Your task to perform on an android device: change notifications settings Image 0: 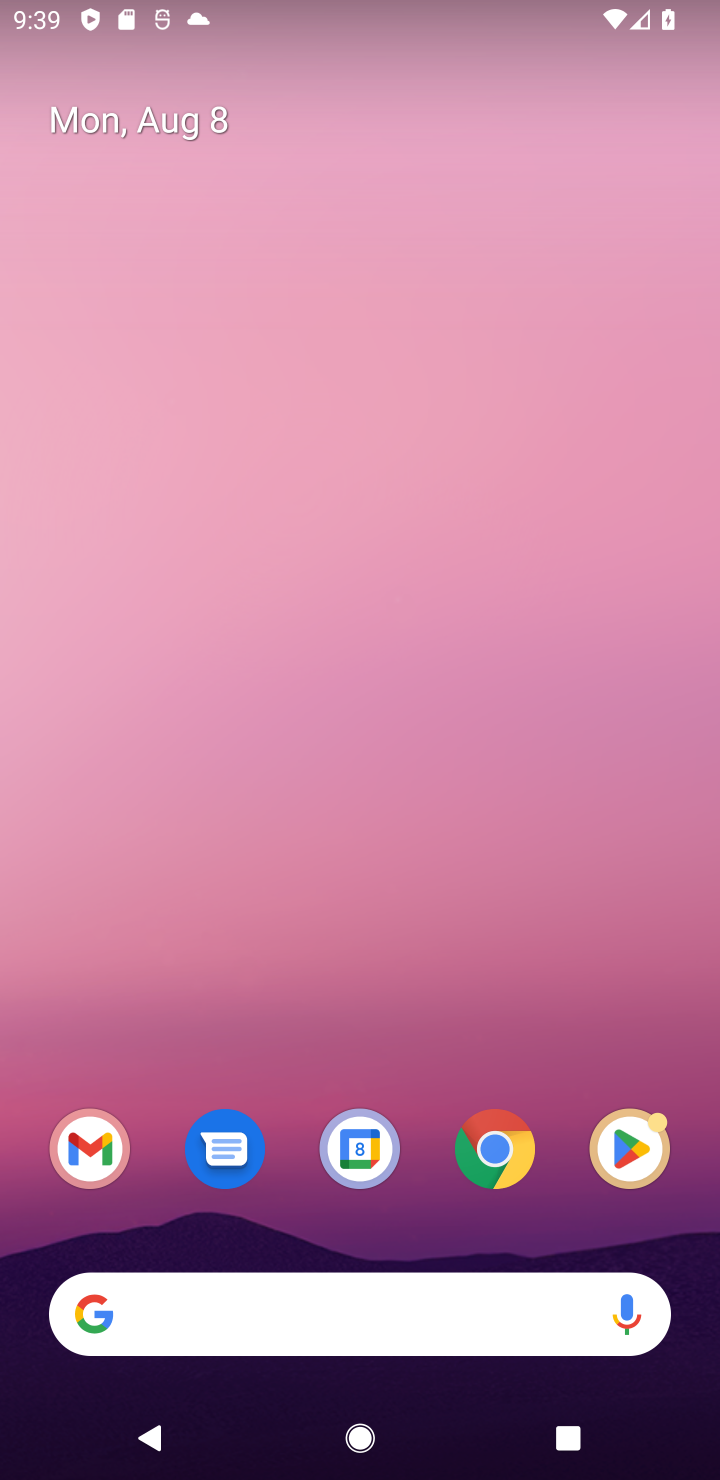
Step 0: drag from (369, 1276) to (347, 405)
Your task to perform on an android device: change notifications settings Image 1: 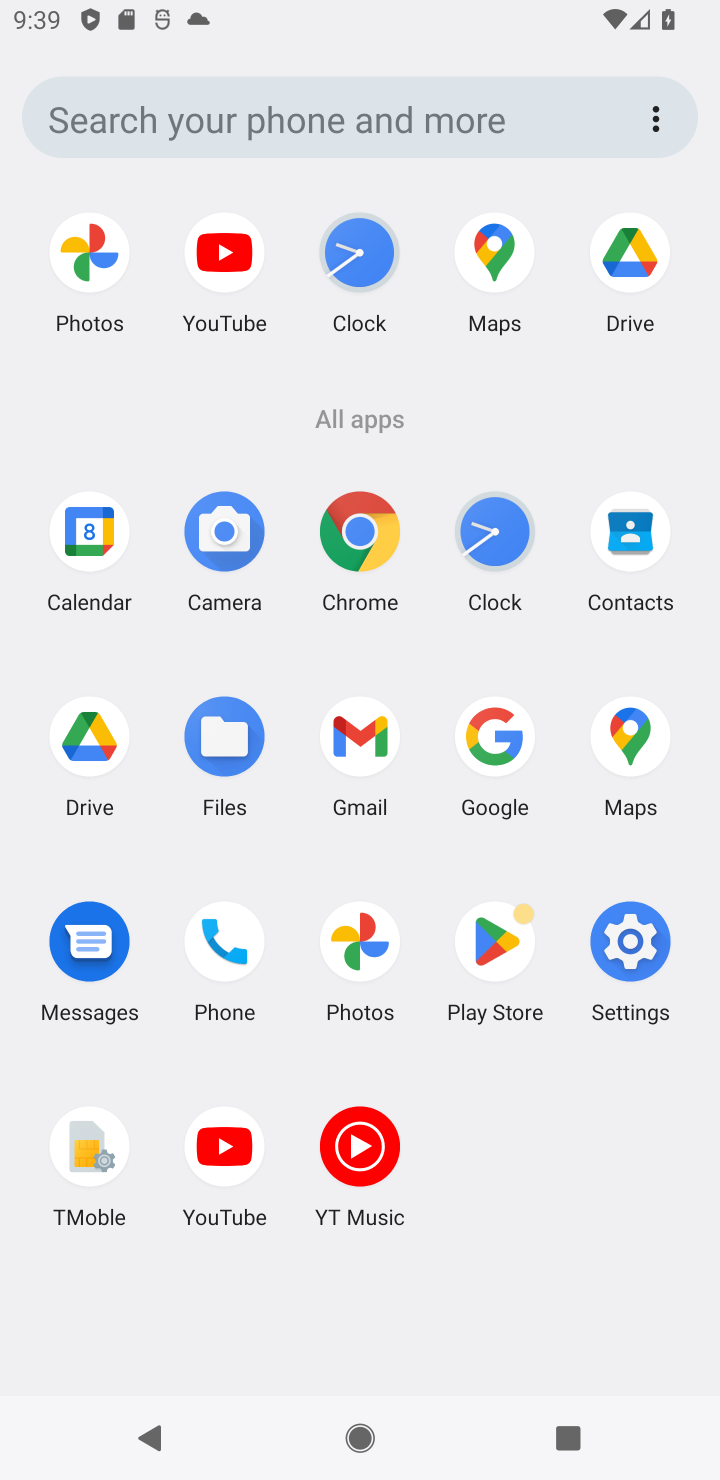
Step 1: click (636, 917)
Your task to perform on an android device: change notifications settings Image 2: 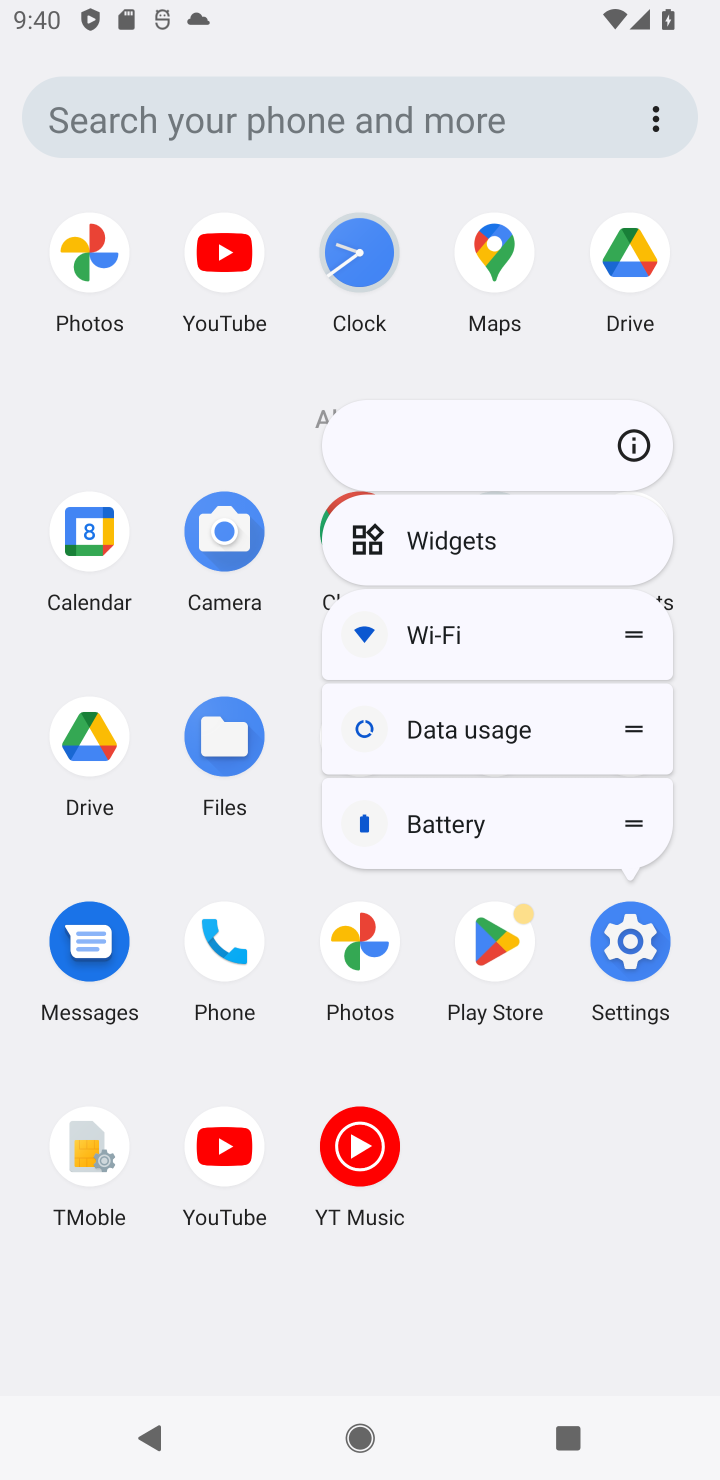
Step 2: click (639, 938)
Your task to perform on an android device: change notifications settings Image 3: 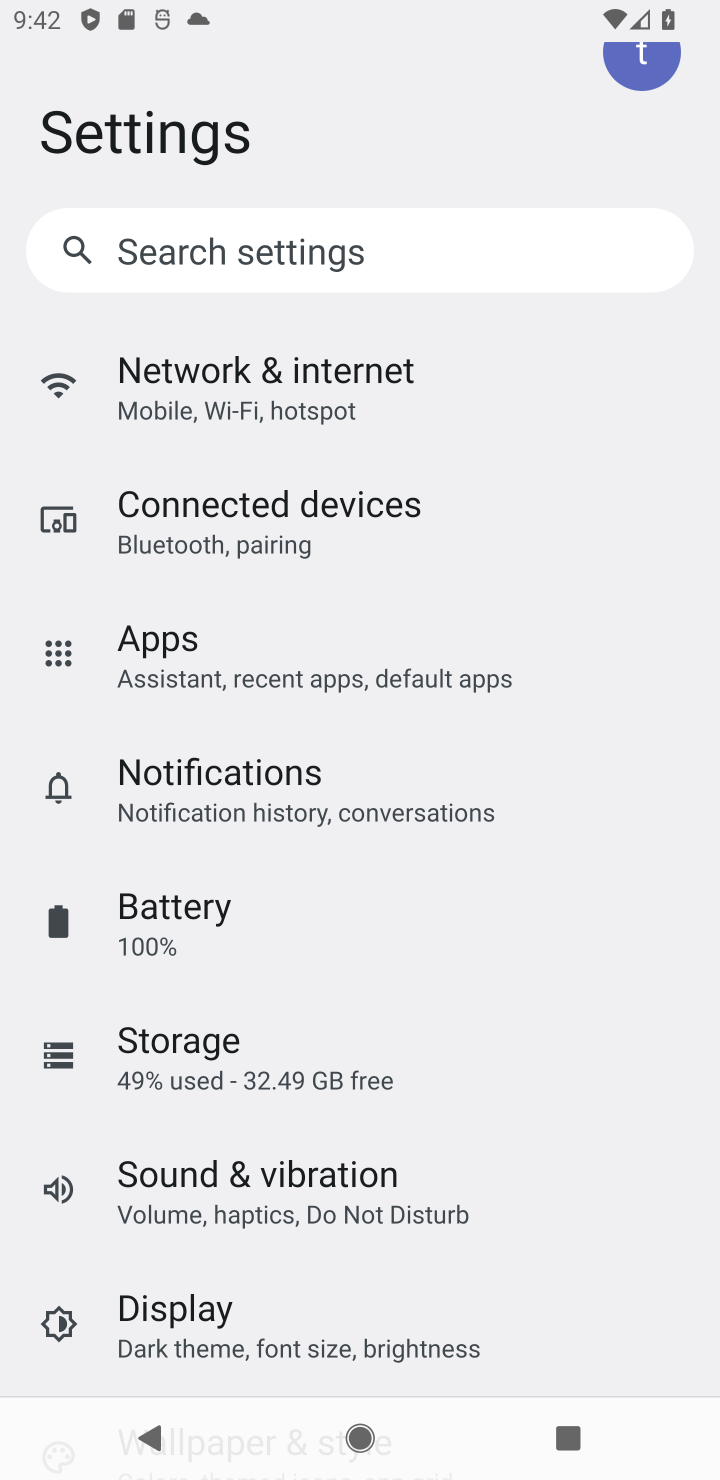
Step 3: click (163, 789)
Your task to perform on an android device: change notifications settings Image 4: 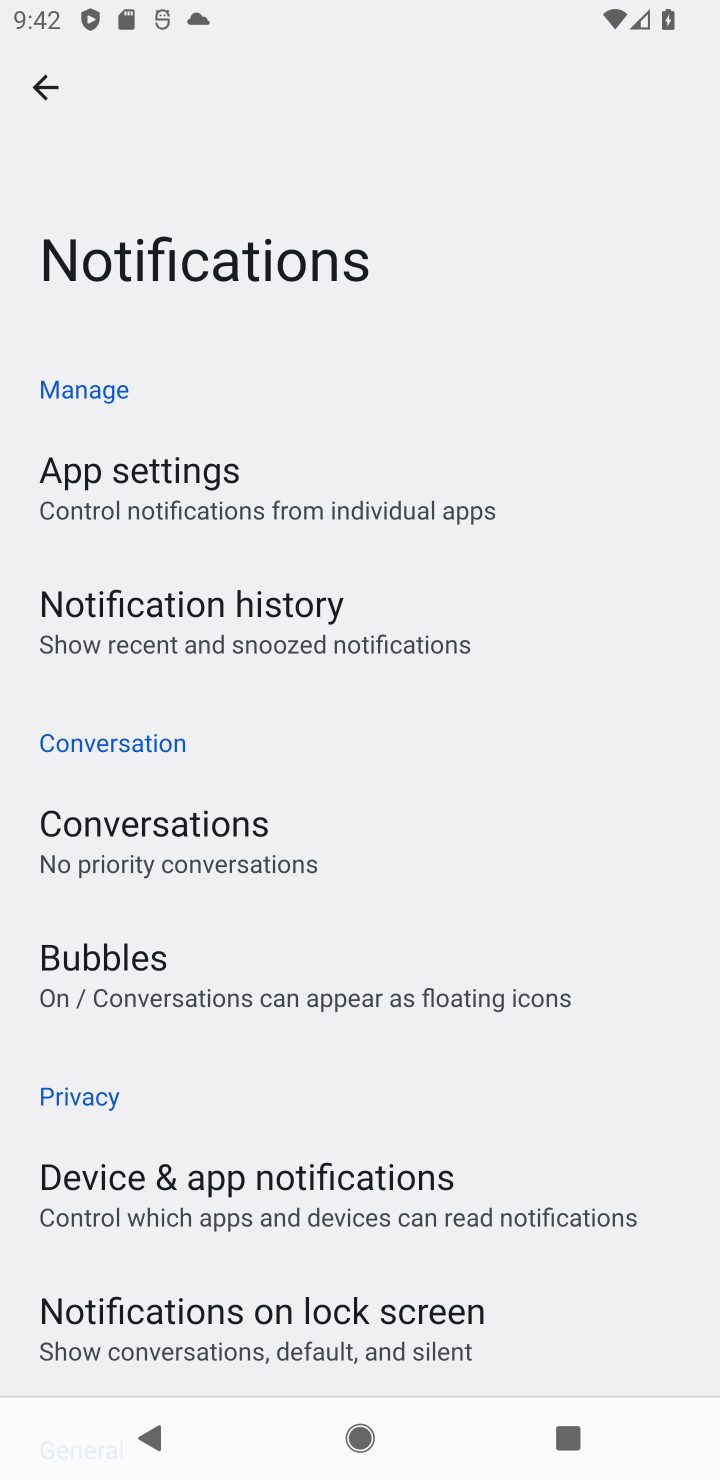
Step 4: click (102, 619)
Your task to perform on an android device: change notifications settings Image 5: 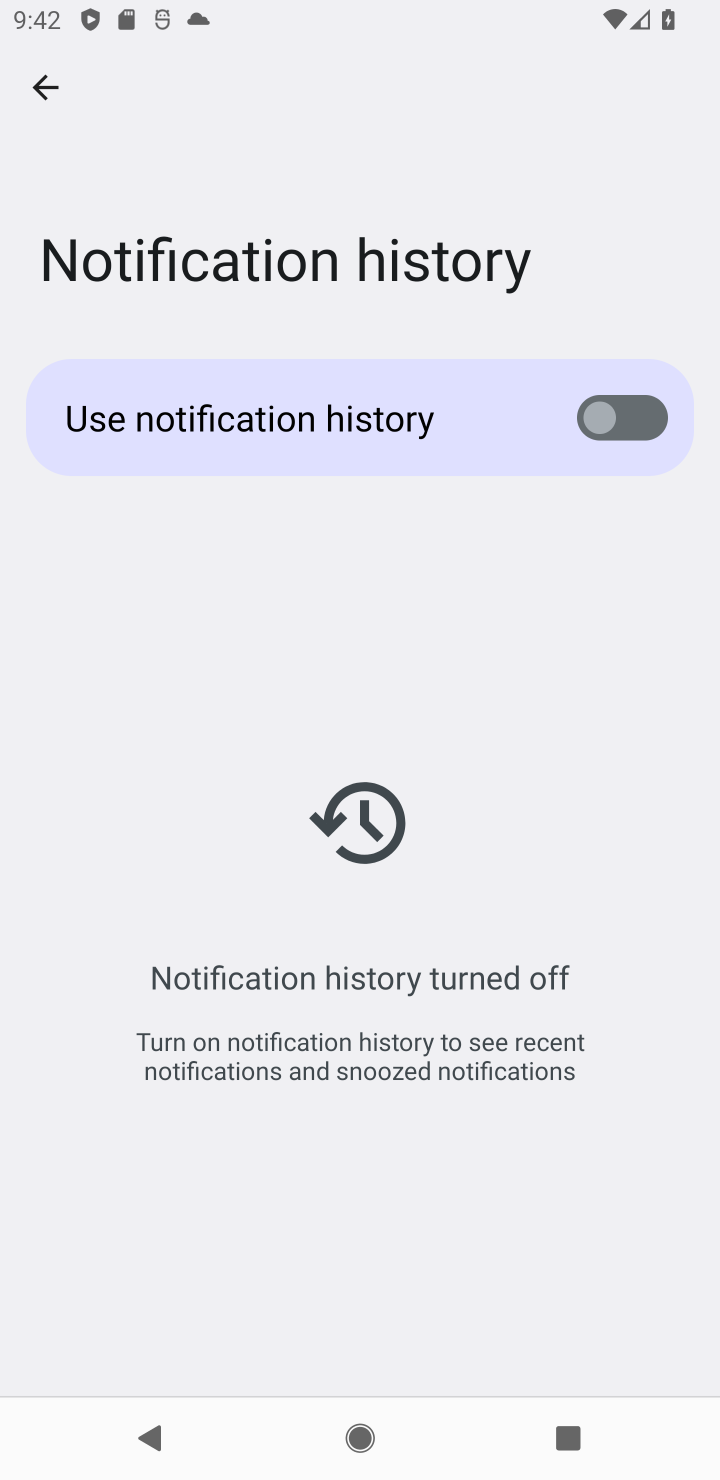
Step 5: click (615, 404)
Your task to perform on an android device: change notifications settings Image 6: 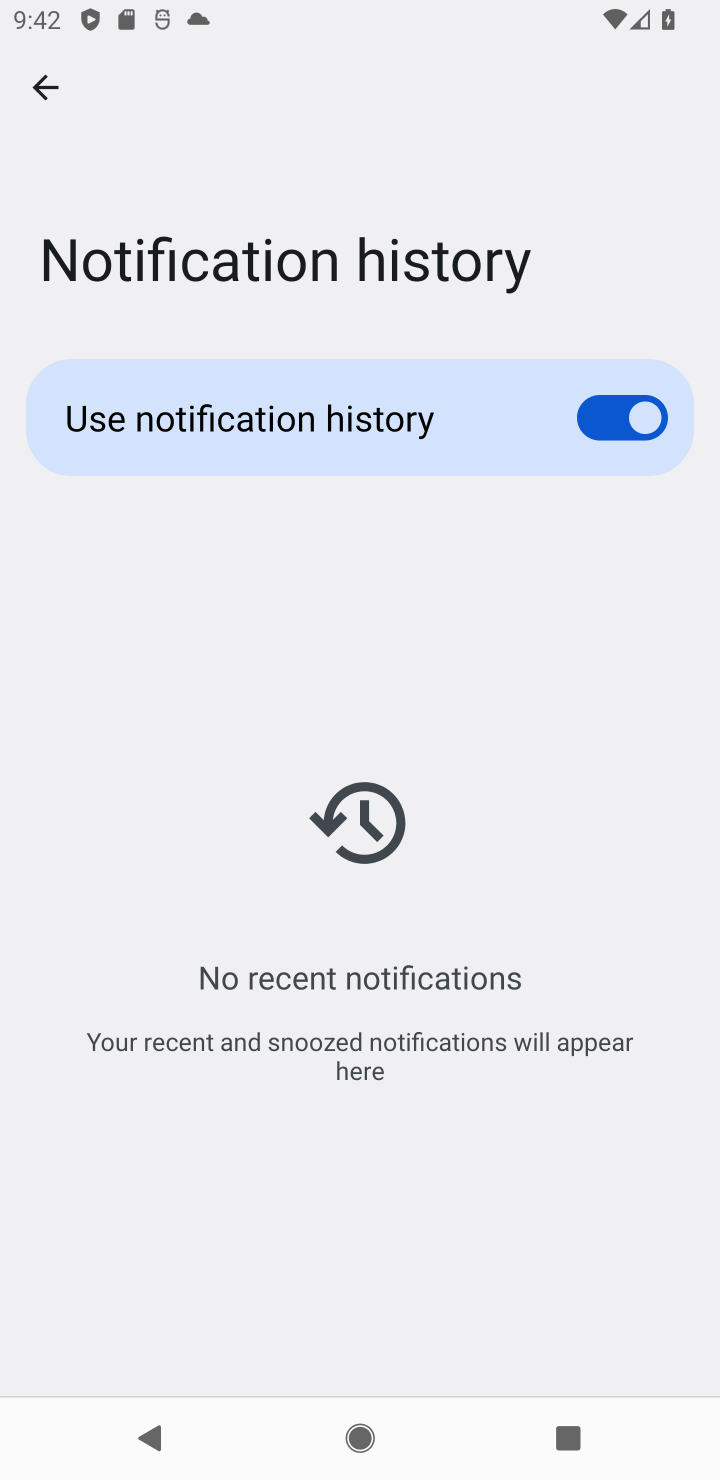
Step 6: task complete